Your task to perform on an android device: Check out the best rated electric trimmers on Lowe's Image 0: 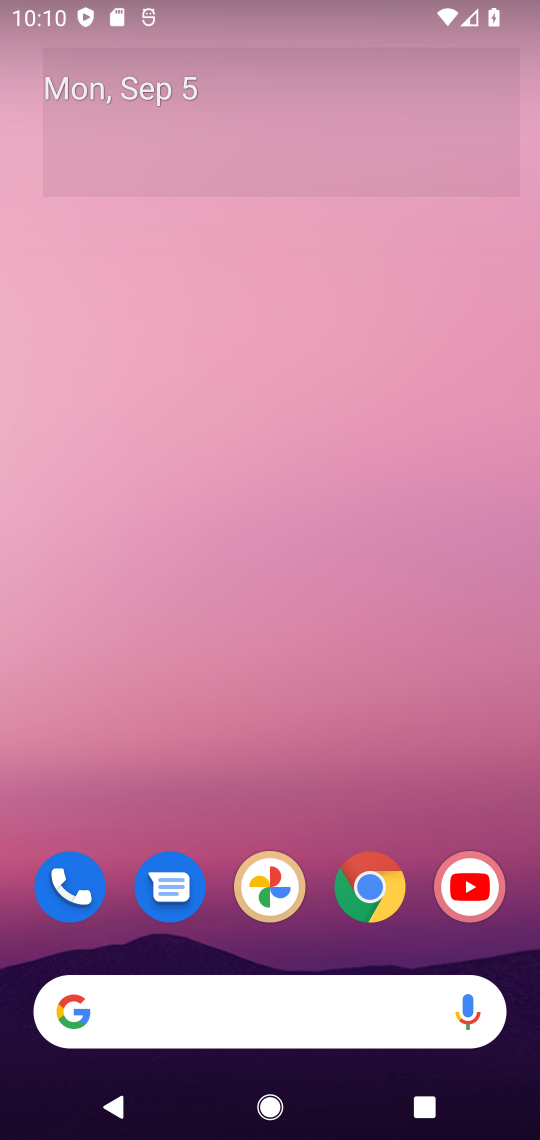
Step 0: click (366, 903)
Your task to perform on an android device: Check out the best rated electric trimmers on Lowe's Image 1: 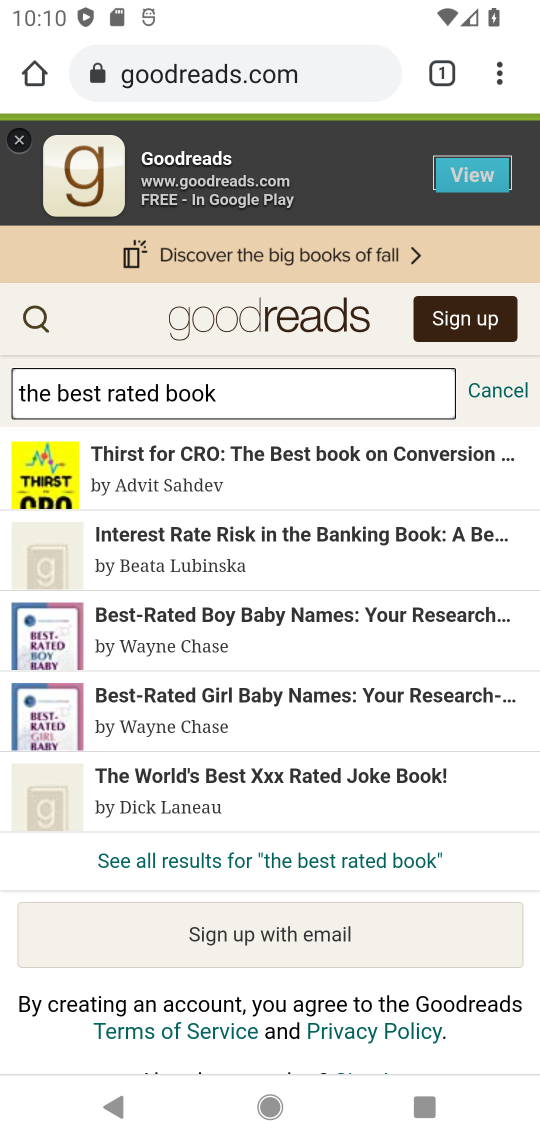
Step 1: click (237, 86)
Your task to perform on an android device: Check out the best rated electric trimmers on Lowe's Image 2: 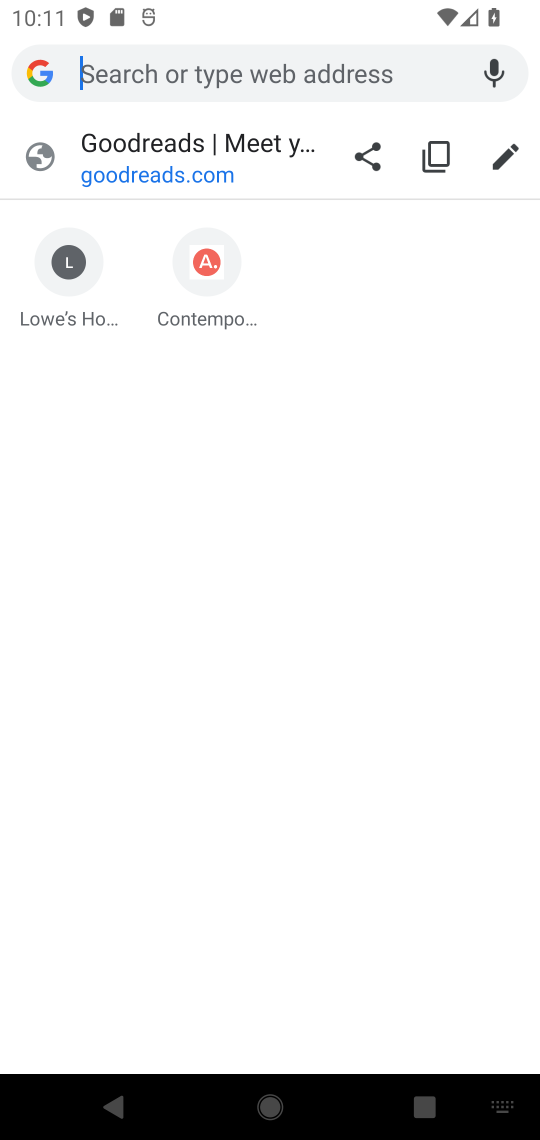
Step 2: type "Lowe's"
Your task to perform on an android device: Check out the best rated electric trimmers on Lowe's Image 3: 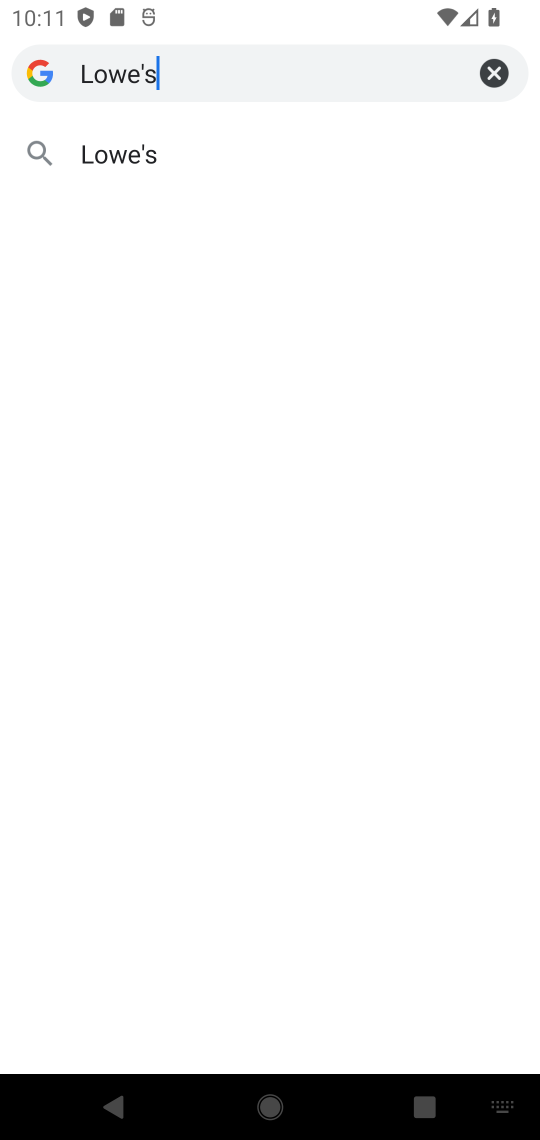
Step 3: click (86, 164)
Your task to perform on an android device: Check out the best rated electric trimmers on Lowe's Image 4: 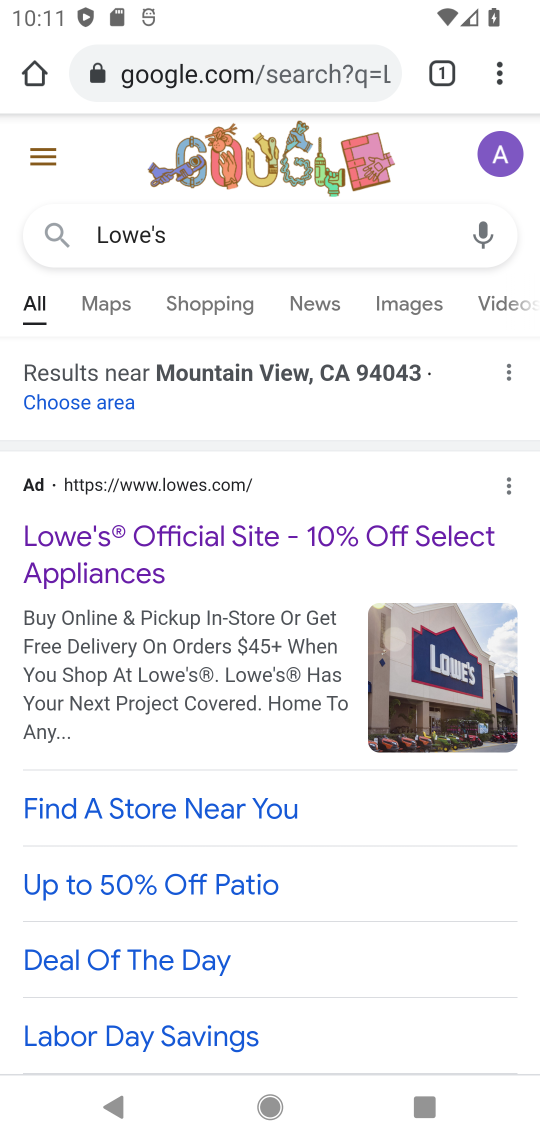
Step 4: click (268, 542)
Your task to perform on an android device: Check out the best rated electric trimmers on Lowe's Image 5: 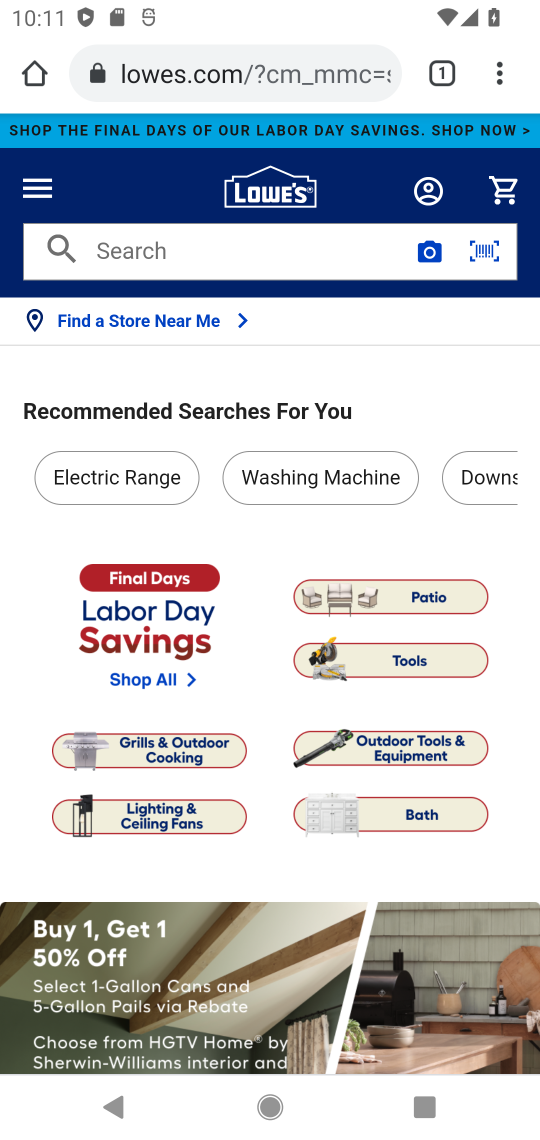
Step 5: click (195, 245)
Your task to perform on an android device: Check out the best rated electric trimmers on Lowe's Image 6: 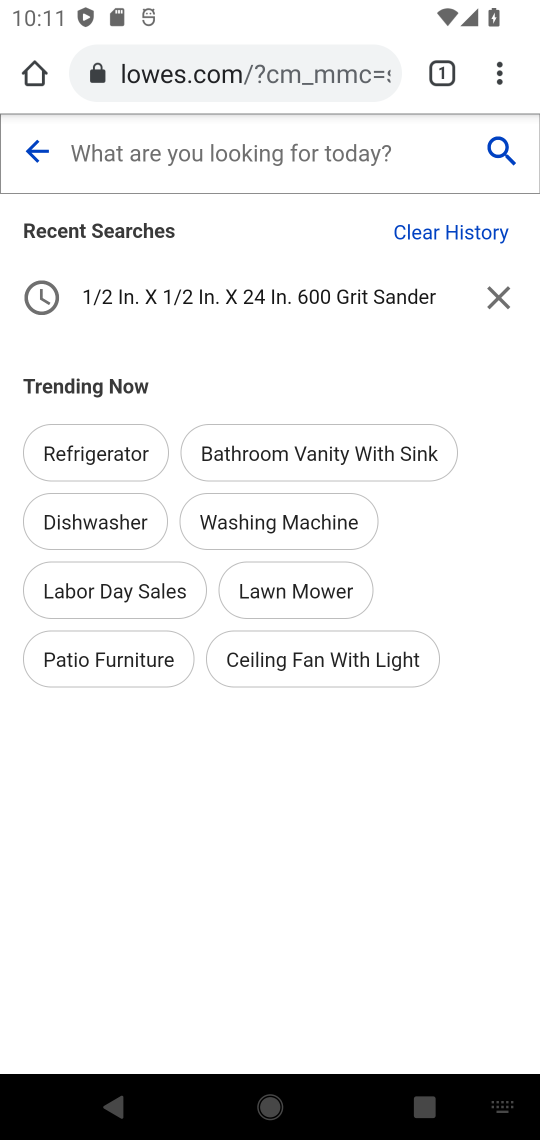
Step 6: type "the best rated electric trimmers"
Your task to perform on an android device: Check out the best rated electric trimmers on Lowe's Image 7: 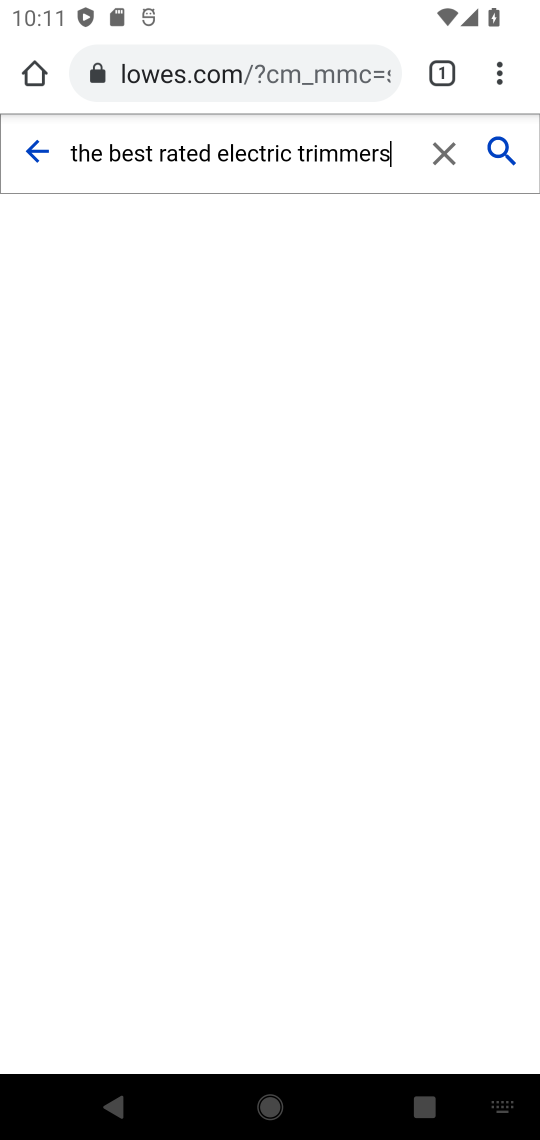
Step 7: click (497, 151)
Your task to perform on an android device: Check out the best rated electric trimmers on Lowe's Image 8: 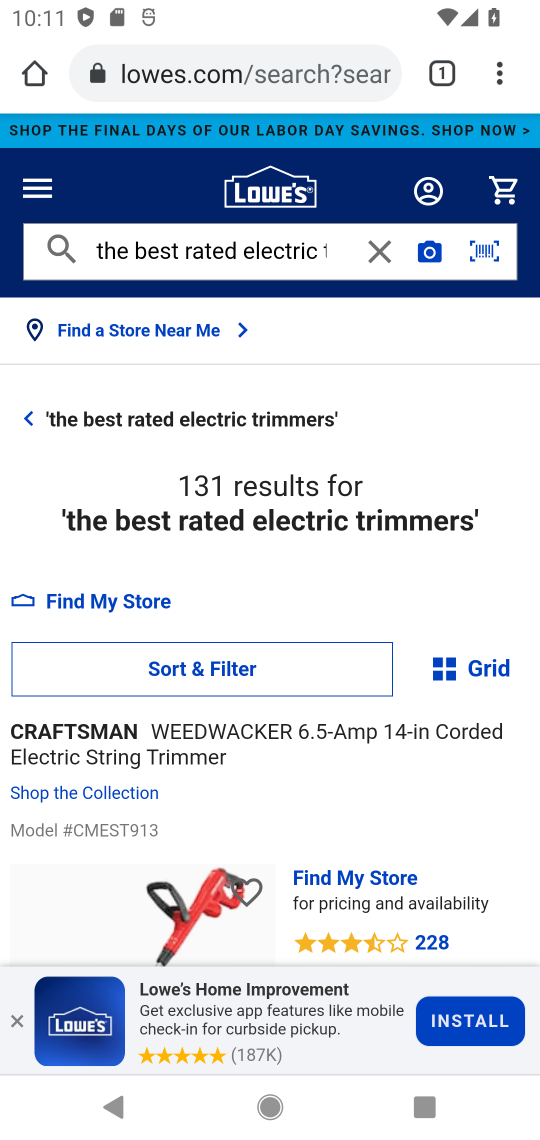
Step 8: task complete